Your task to perform on an android device: create a new album in the google photos Image 0: 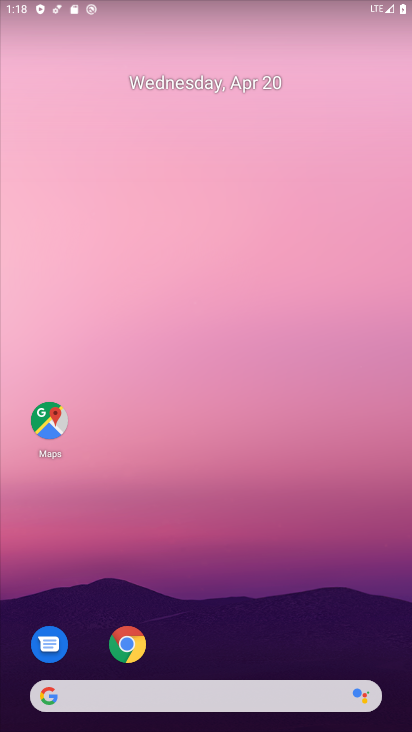
Step 0: drag from (206, 641) to (190, 72)
Your task to perform on an android device: create a new album in the google photos Image 1: 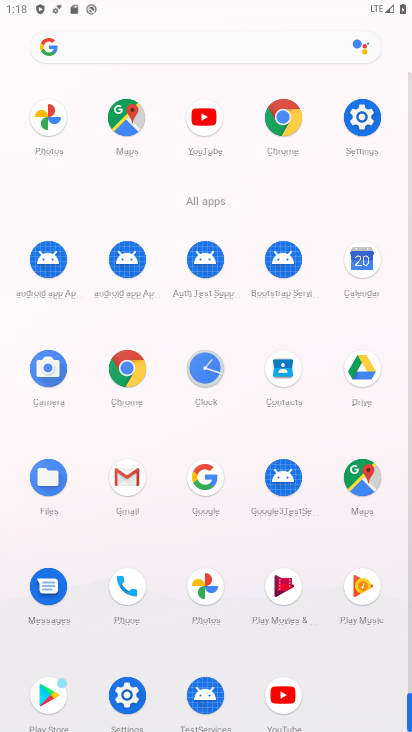
Step 1: click (209, 593)
Your task to perform on an android device: create a new album in the google photos Image 2: 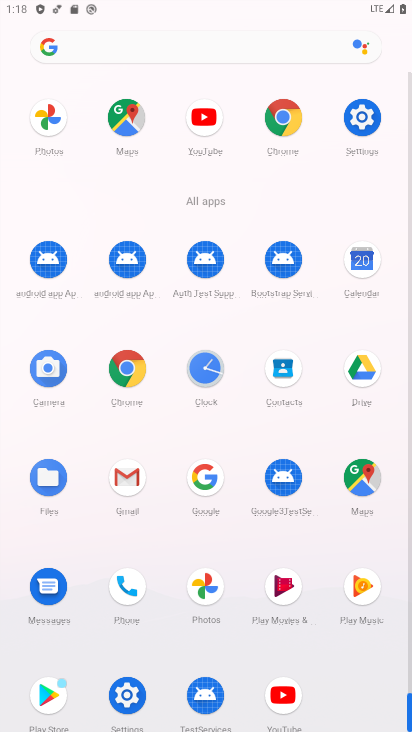
Step 2: click (209, 593)
Your task to perform on an android device: create a new album in the google photos Image 3: 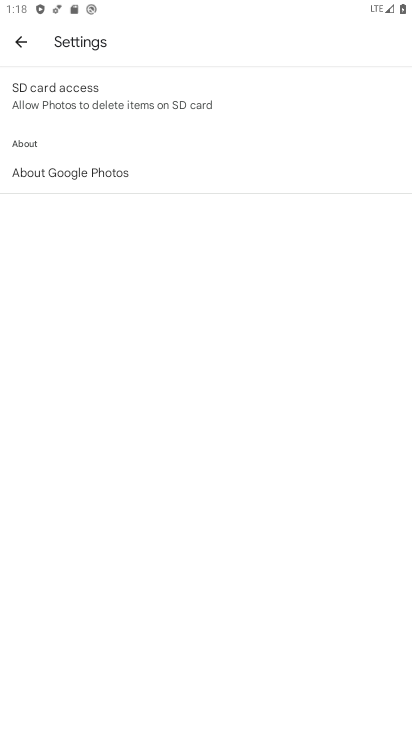
Step 3: press home button
Your task to perform on an android device: create a new album in the google photos Image 4: 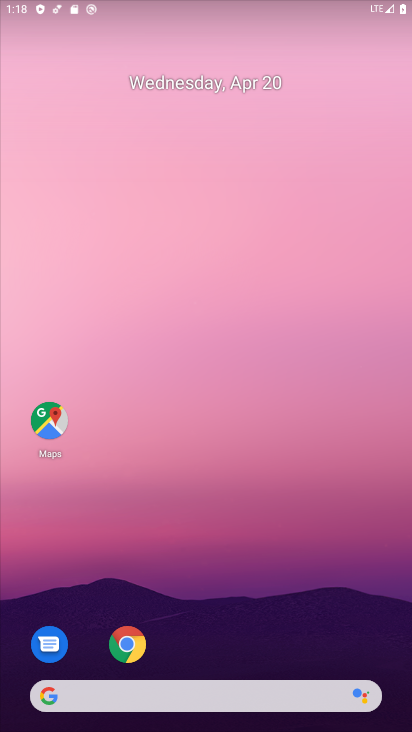
Step 4: drag from (201, 655) to (235, 4)
Your task to perform on an android device: create a new album in the google photos Image 5: 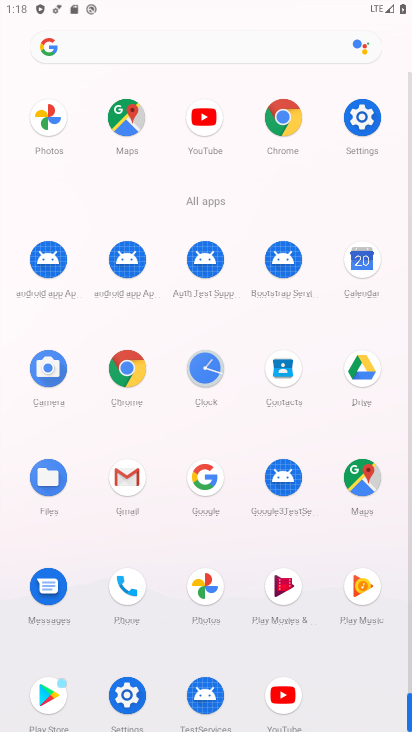
Step 5: click (216, 593)
Your task to perform on an android device: create a new album in the google photos Image 6: 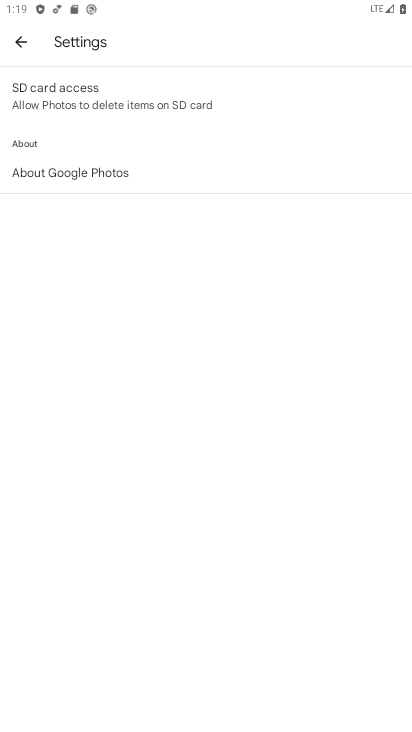
Step 6: press back button
Your task to perform on an android device: create a new album in the google photos Image 7: 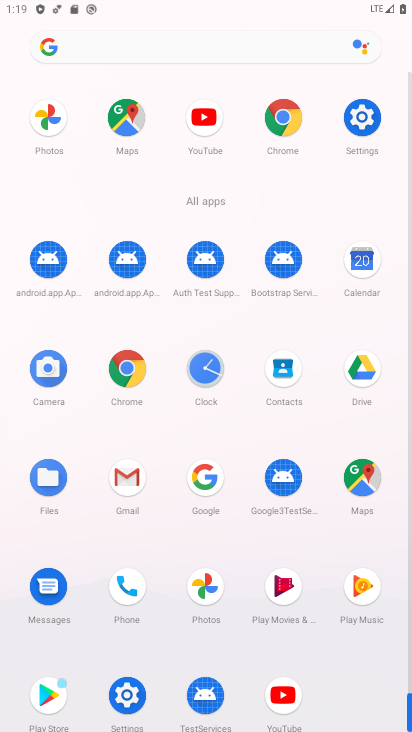
Step 7: click (209, 599)
Your task to perform on an android device: create a new album in the google photos Image 8: 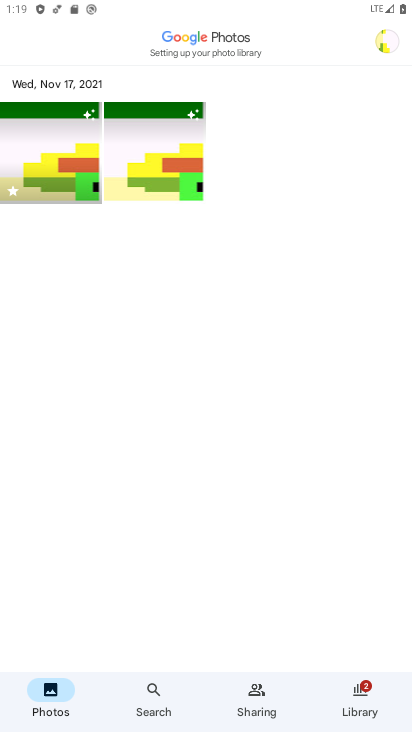
Step 8: click (368, 705)
Your task to perform on an android device: create a new album in the google photos Image 9: 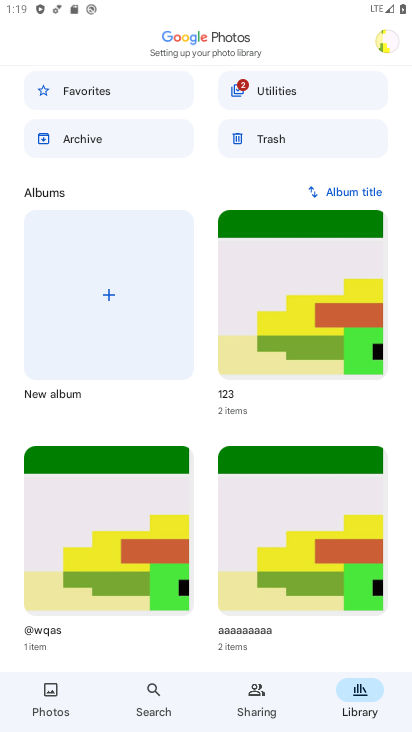
Step 9: click (111, 278)
Your task to perform on an android device: create a new album in the google photos Image 10: 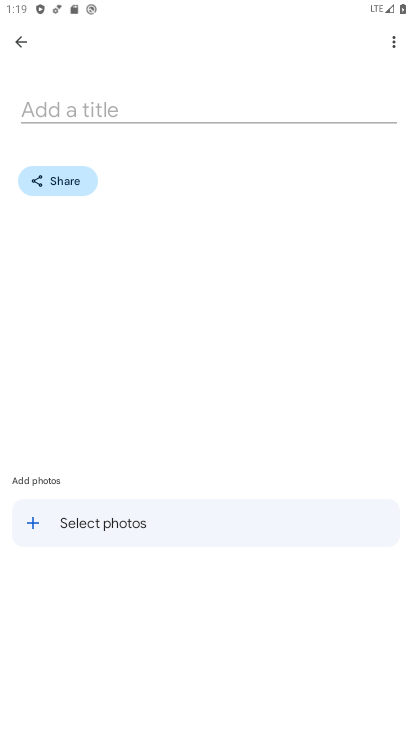
Step 10: click (121, 108)
Your task to perform on an android device: create a new album in the google photos Image 11: 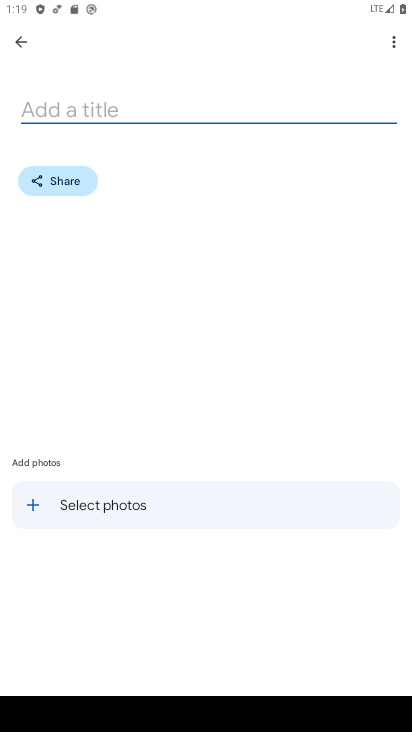
Step 11: type "ytdhfgj"
Your task to perform on an android device: create a new album in the google photos Image 12: 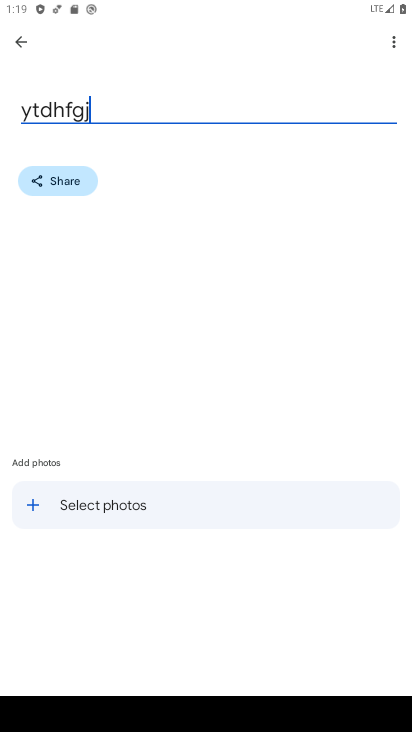
Step 12: click (37, 497)
Your task to perform on an android device: create a new album in the google photos Image 13: 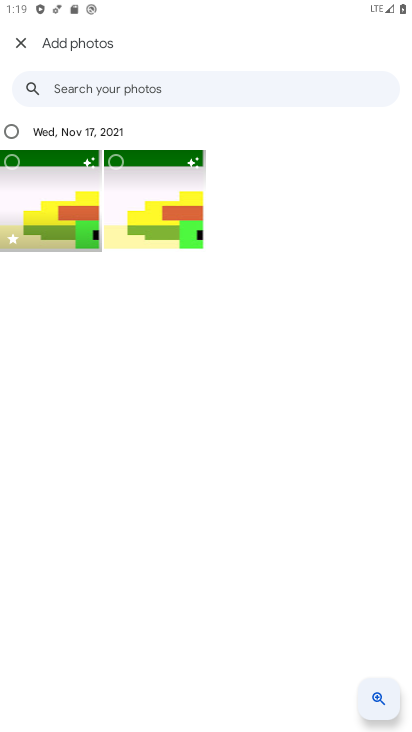
Step 13: click (35, 200)
Your task to perform on an android device: create a new album in the google photos Image 14: 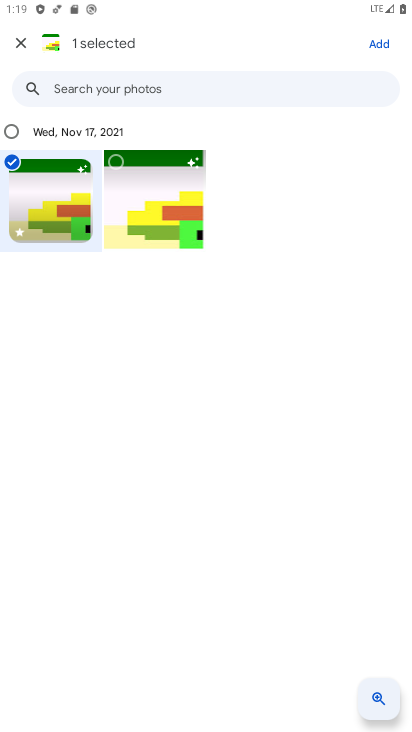
Step 14: click (384, 40)
Your task to perform on an android device: create a new album in the google photos Image 15: 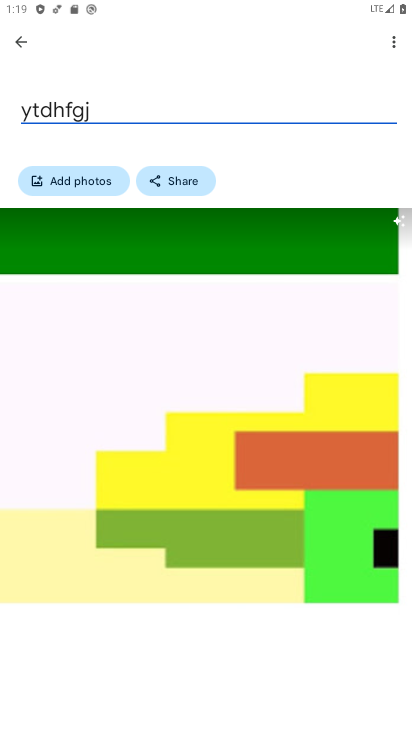
Step 15: task complete